Your task to perform on an android device: Open the calendar and show me this week's events? Image 0: 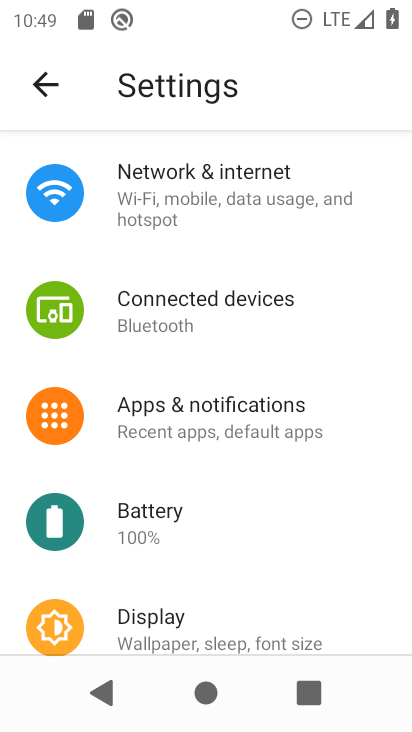
Step 0: press back button
Your task to perform on an android device: Open the calendar and show me this week's events? Image 1: 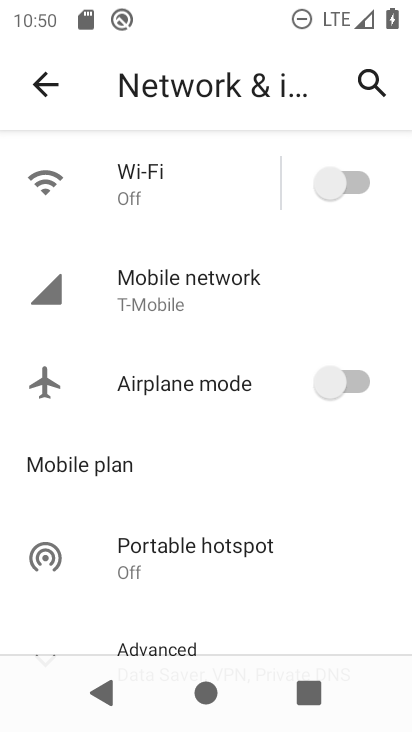
Step 1: press back button
Your task to perform on an android device: Open the calendar and show me this week's events? Image 2: 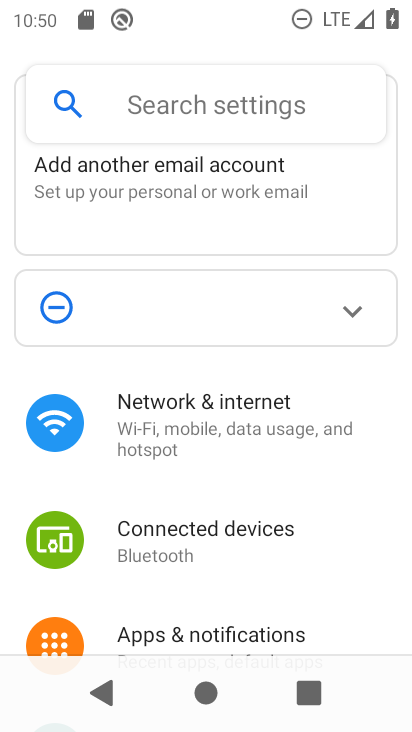
Step 2: press back button
Your task to perform on an android device: Open the calendar and show me this week's events? Image 3: 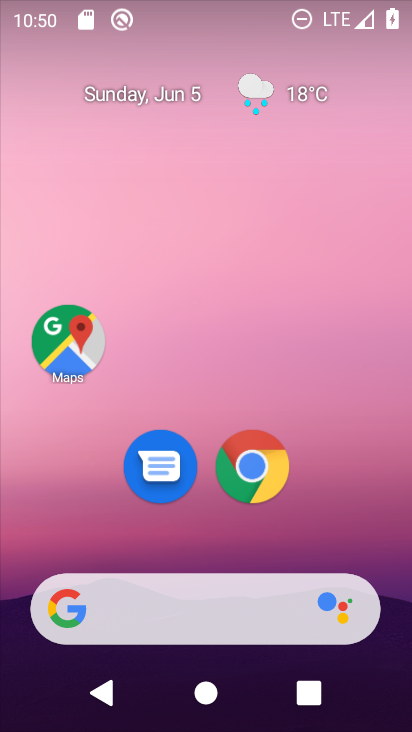
Step 3: drag from (392, 607) to (311, 41)
Your task to perform on an android device: Open the calendar and show me this week's events? Image 4: 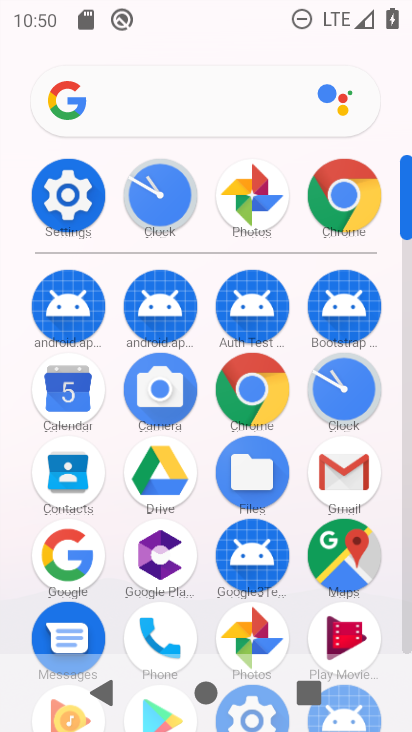
Step 4: drag from (8, 582) to (25, 249)
Your task to perform on an android device: Open the calendar and show me this week's events? Image 5: 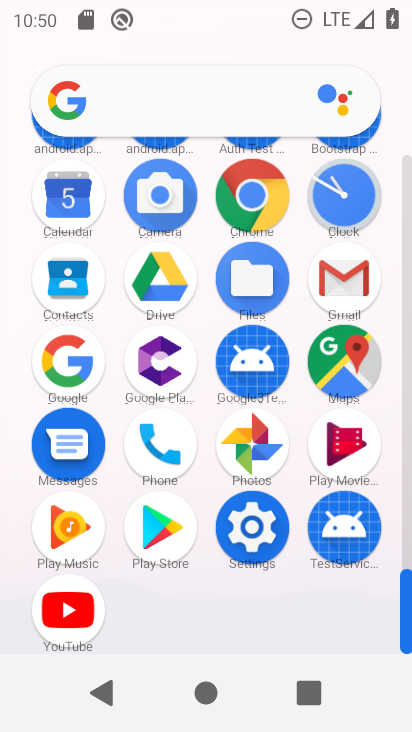
Step 5: click (66, 187)
Your task to perform on an android device: Open the calendar and show me this week's events? Image 6: 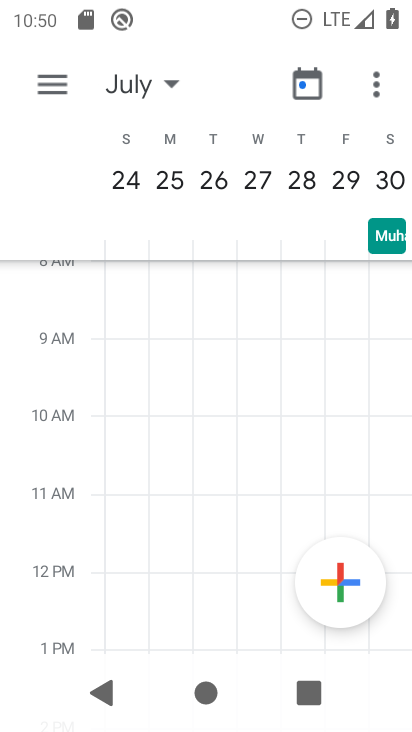
Step 6: click (132, 83)
Your task to perform on an android device: Open the calendar and show me this week's events? Image 7: 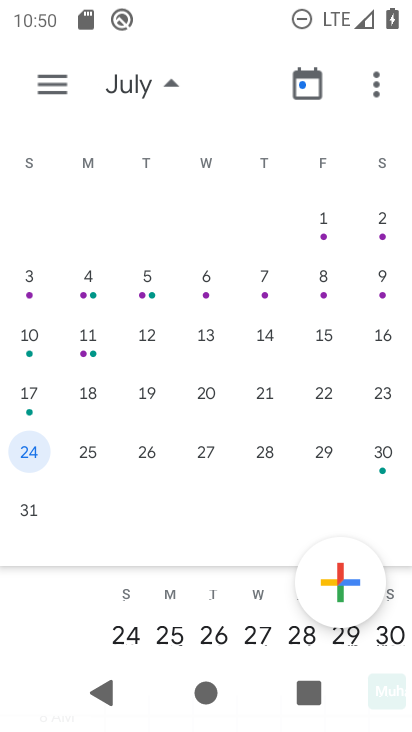
Step 7: click (55, 81)
Your task to perform on an android device: Open the calendar and show me this week's events? Image 8: 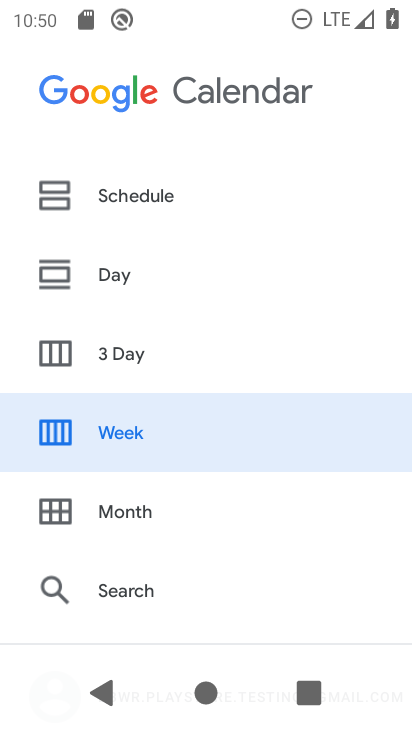
Step 8: click (153, 433)
Your task to perform on an android device: Open the calendar and show me this week's events? Image 9: 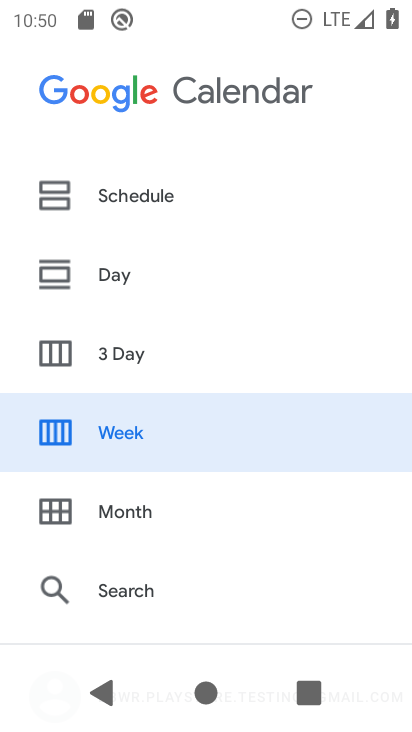
Step 9: click (153, 422)
Your task to perform on an android device: Open the calendar and show me this week's events? Image 10: 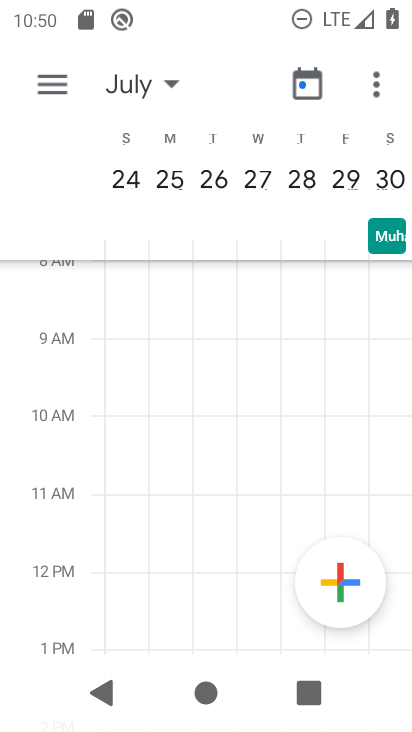
Step 10: task complete